Your task to perform on an android device: Turn off the flashlight Image 0: 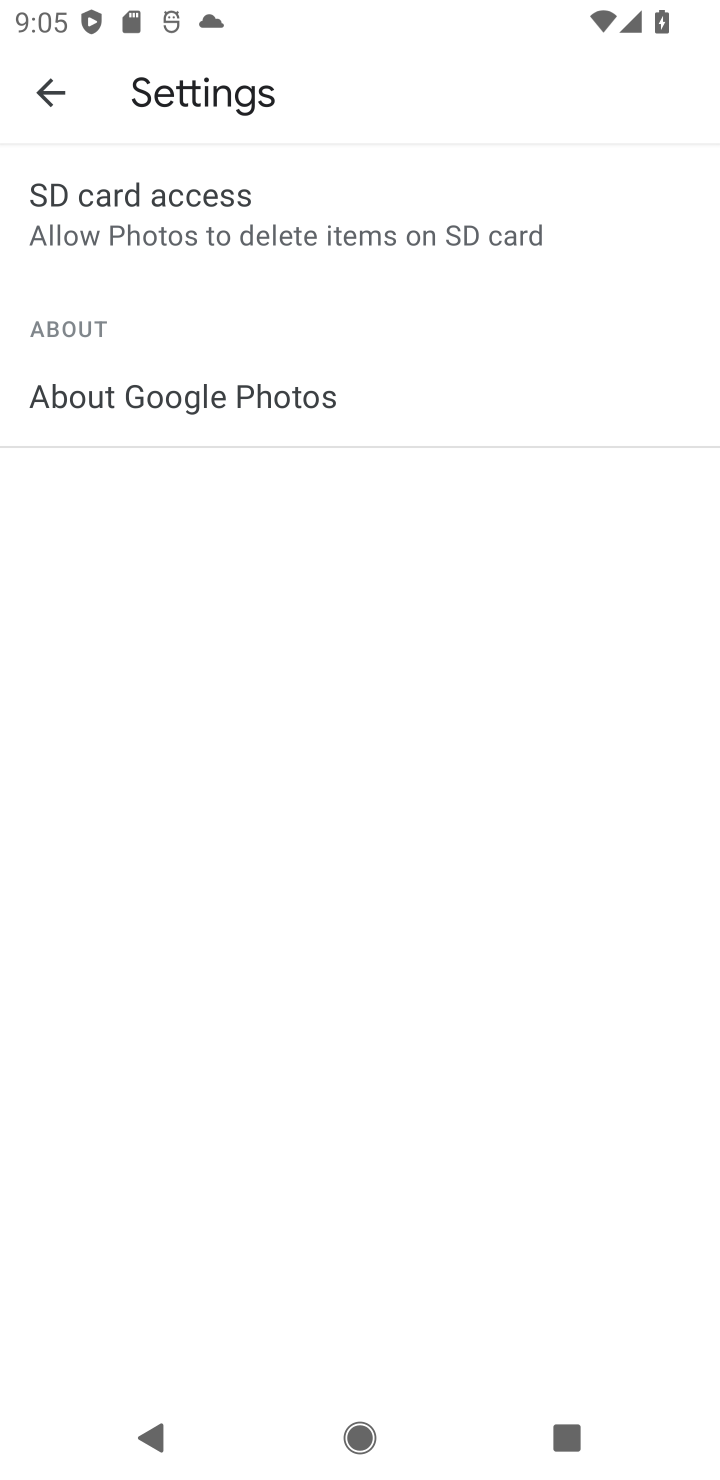
Step 0: press home button
Your task to perform on an android device: Turn off the flashlight Image 1: 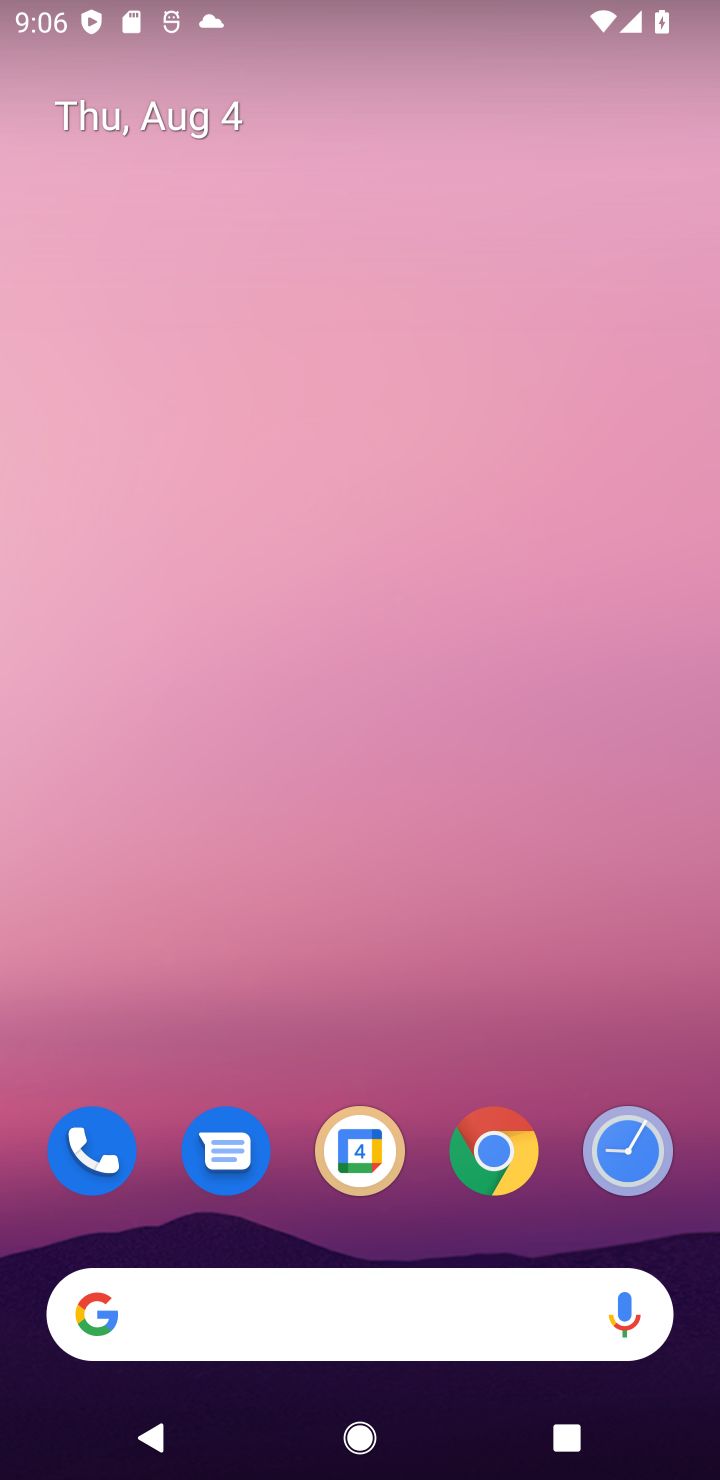
Step 1: task complete